Your task to perform on an android device: Open Reddit.com Image 0: 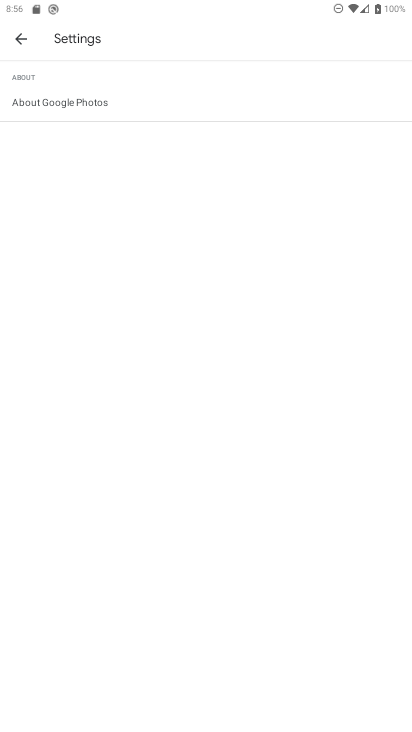
Step 0: drag from (219, 442) to (254, 278)
Your task to perform on an android device: Open Reddit.com Image 1: 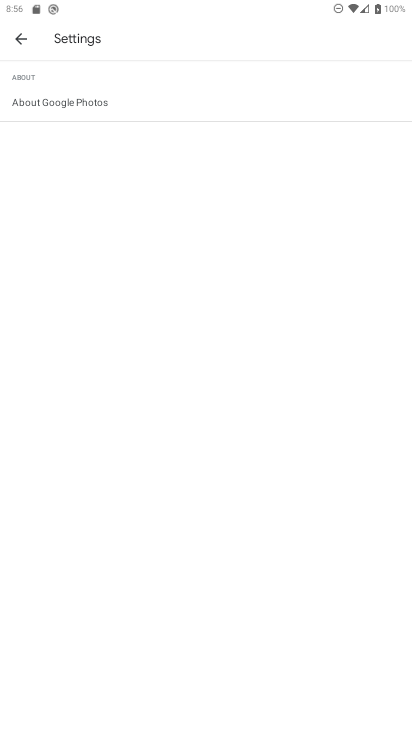
Step 1: task complete